Your task to perform on an android device: toggle location history Image 0: 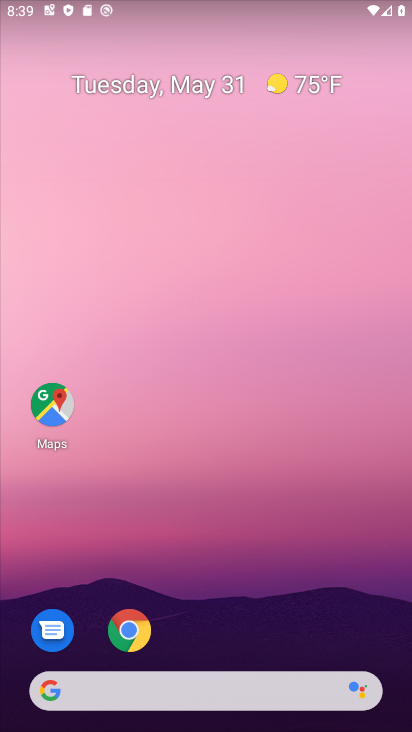
Step 0: drag from (237, 586) to (315, 103)
Your task to perform on an android device: toggle location history Image 1: 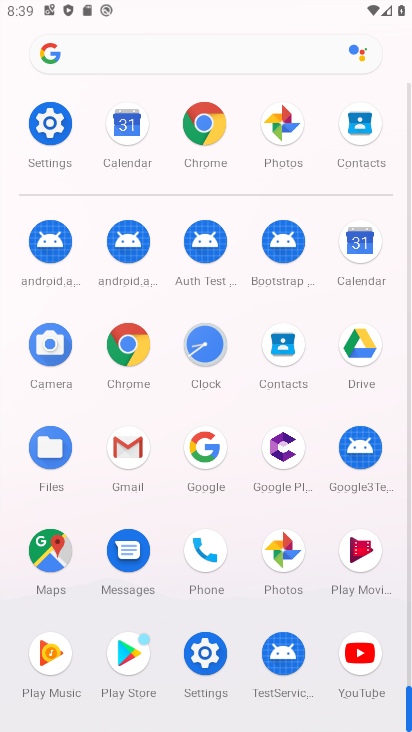
Step 1: click (53, 129)
Your task to perform on an android device: toggle location history Image 2: 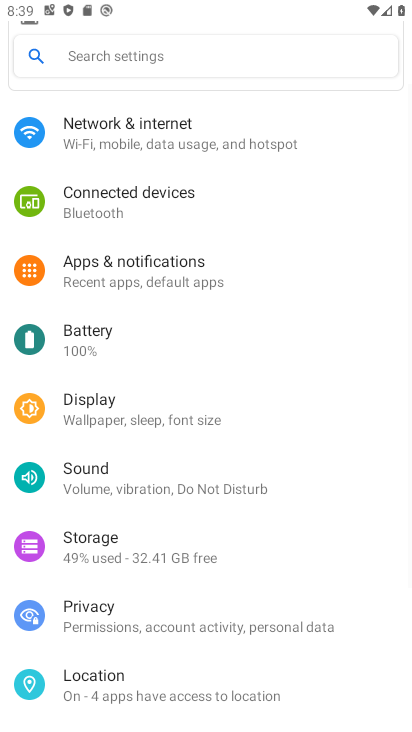
Step 2: drag from (139, 509) to (185, 284)
Your task to perform on an android device: toggle location history Image 3: 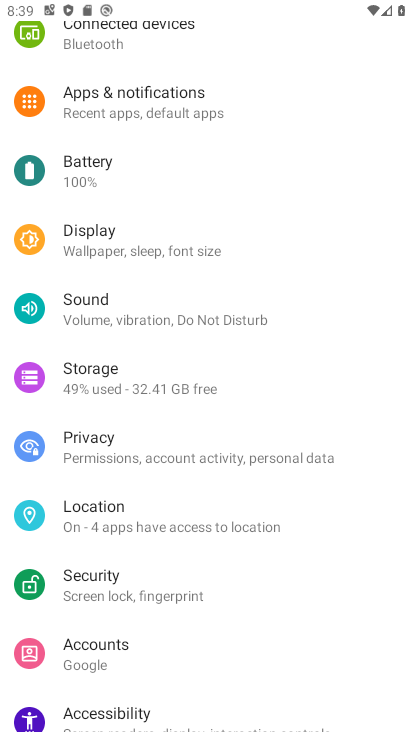
Step 3: click (133, 518)
Your task to perform on an android device: toggle location history Image 4: 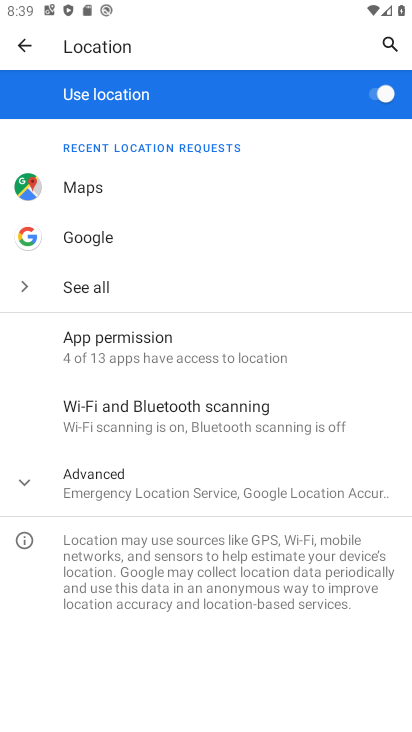
Step 4: click (133, 460)
Your task to perform on an android device: toggle location history Image 5: 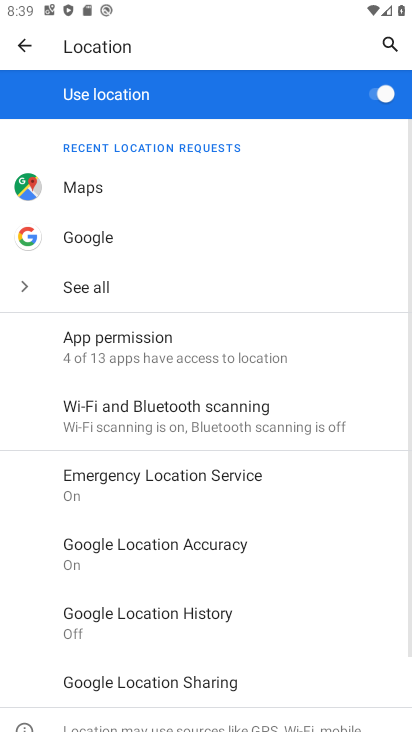
Step 5: click (207, 635)
Your task to perform on an android device: toggle location history Image 6: 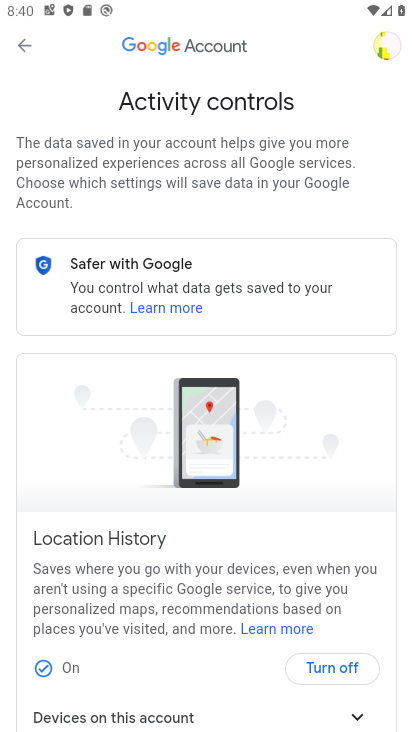
Step 6: drag from (193, 577) to (222, 328)
Your task to perform on an android device: toggle location history Image 7: 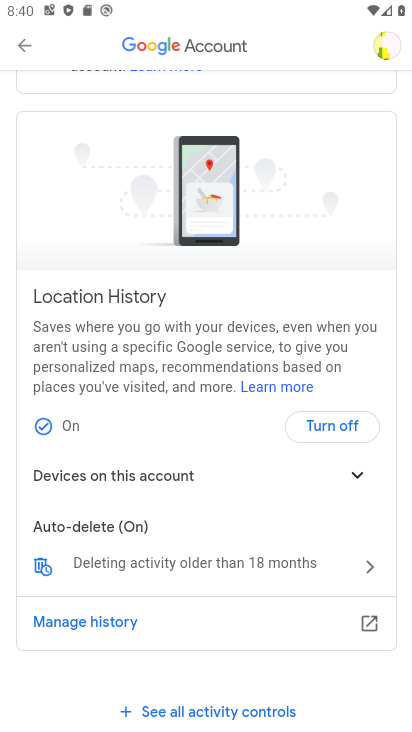
Step 7: click (346, 421)
Your task to perform on an android device: toggle location history Image 8: 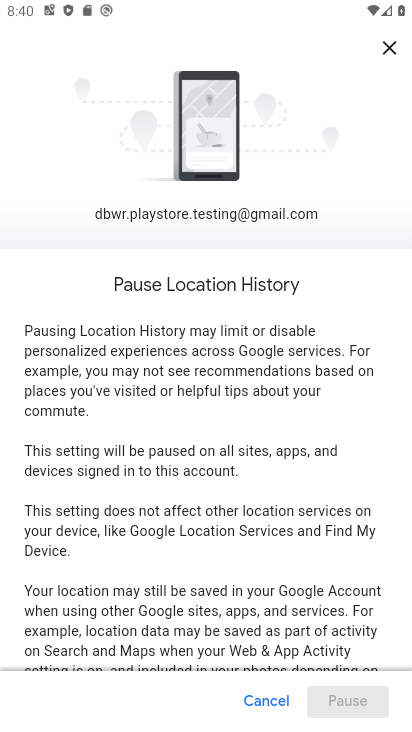
Step 8: drag from (201, 577) to (219, 149)
Your task to perform on an android device: toggle location history Image 9: 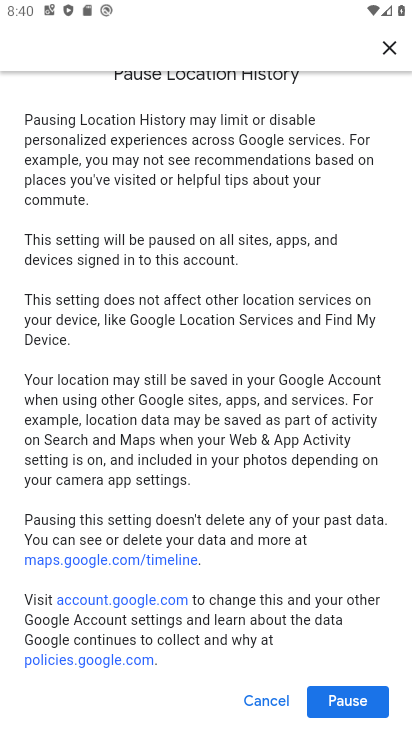
Step 9: click (368, 710)
Your task to perform on an android device: toggle location history Image 10: 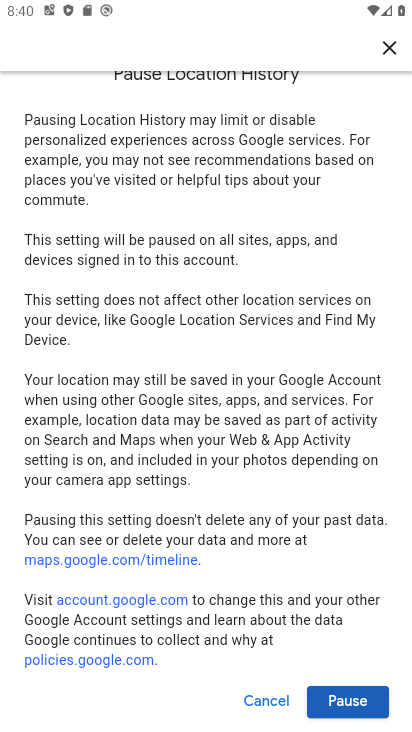
Step 10: click (350, 701)
Your task to perform on an android device: toggle location history Image 11: 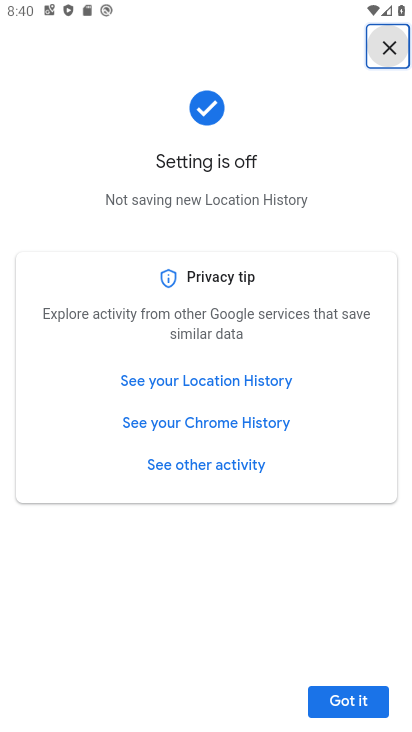
Step 11: click (349, 709)
Your task to perform on an android device: toggle location history Image 12: 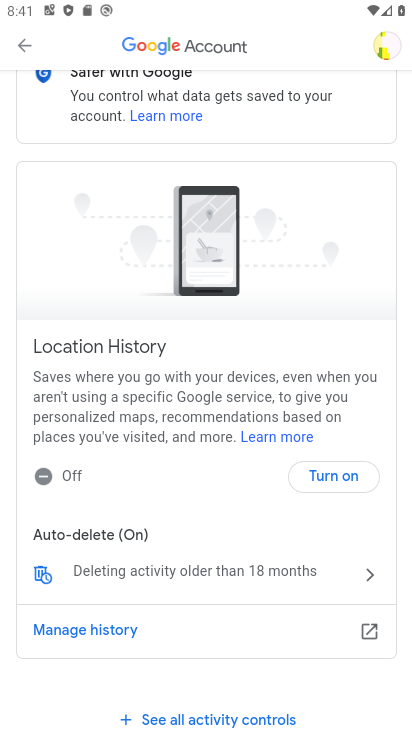
Step 12: task complete